Your task to perform on an android device: change the clock display to digital Image 0: 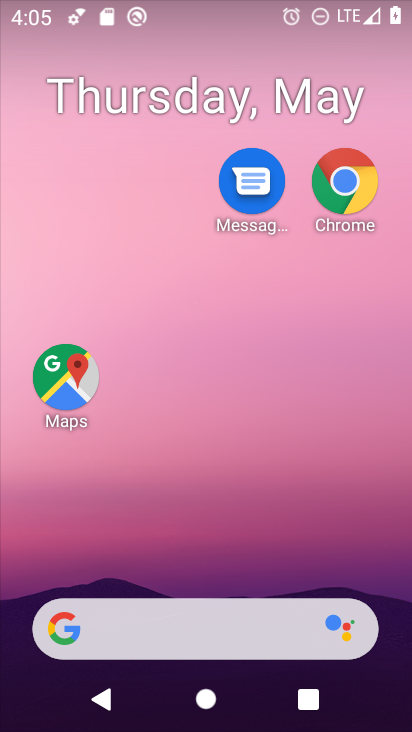
Step 0: drag from (239, 624) to (319, 24)
Your task to perform on an android device: change the clock display to digital Image 1: 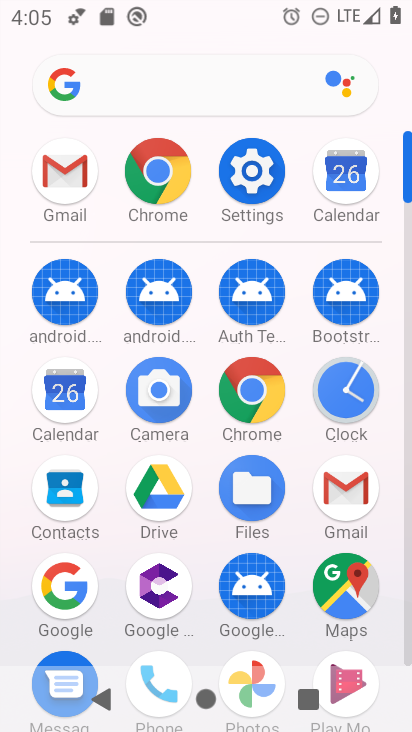
Step 1: click (339, 407)
Your task to perform on an android device: change the clock display to digital Image 2: 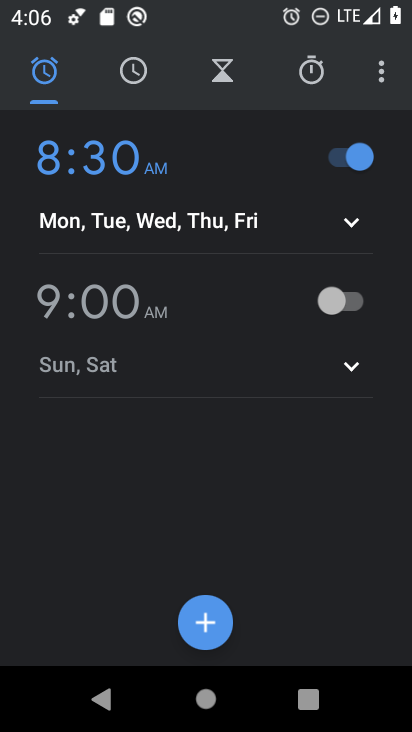
Step 2: click (387, 70)
Your task to perform on an android device: change the clock display to digital Image 3: 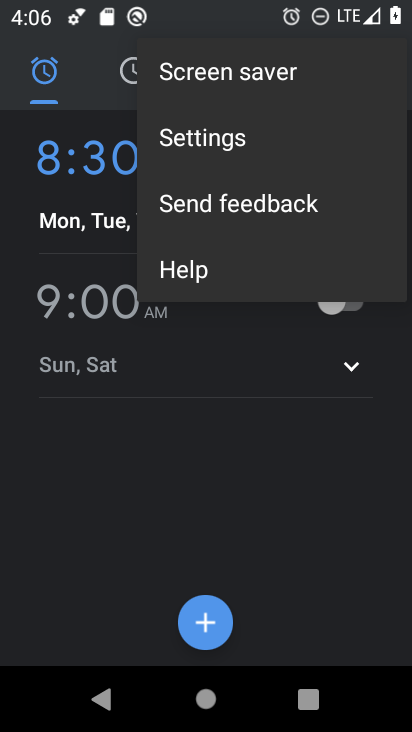
Step 3: click (269, 144)
Your task to perform on an android device: change the clock display to digital Image 4: 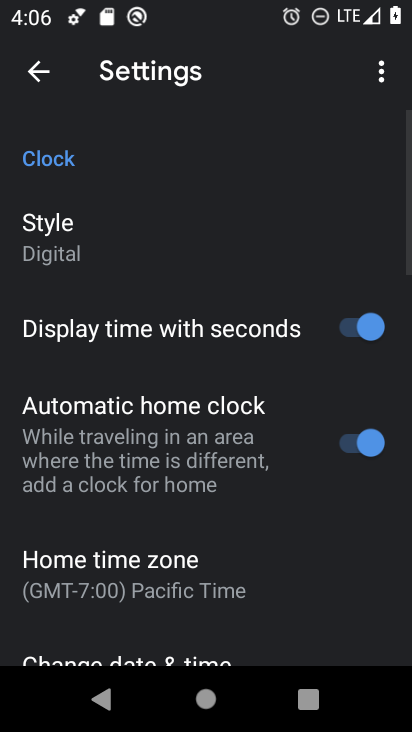
Step 4: task complete